Your task to perform on an android device: turn off location history Image 0: 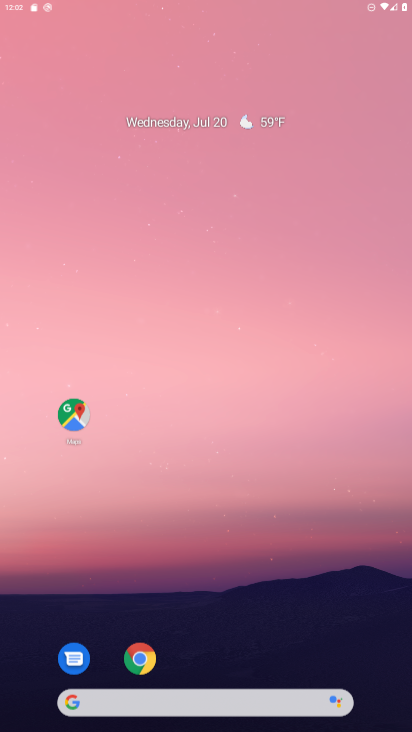
Step 0: press home button
Your task to perform on an android device: turn off location history Image 1: 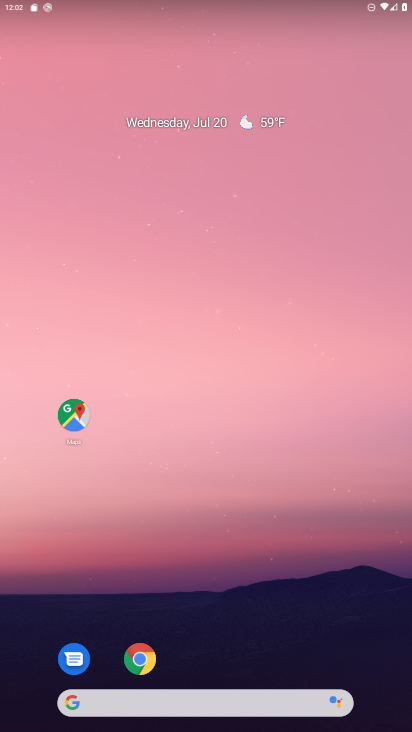
Step 1: drag from (337, 610) to (254, 0)
Your task to perform on an android device: turn off location history Image 2: 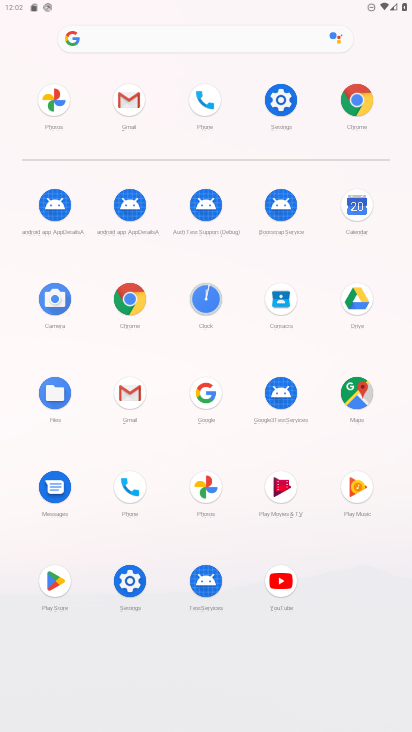
Step 2: click (280, 94)
Your task to perform on an android device: turn off location history Image 3: 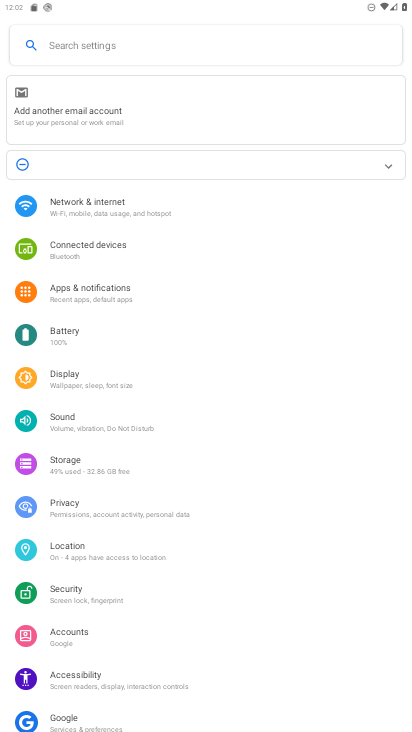
Step 3: drag from (183, 667) to (243, 271)
Your task to perform on an android device: turn off location history Image 4: 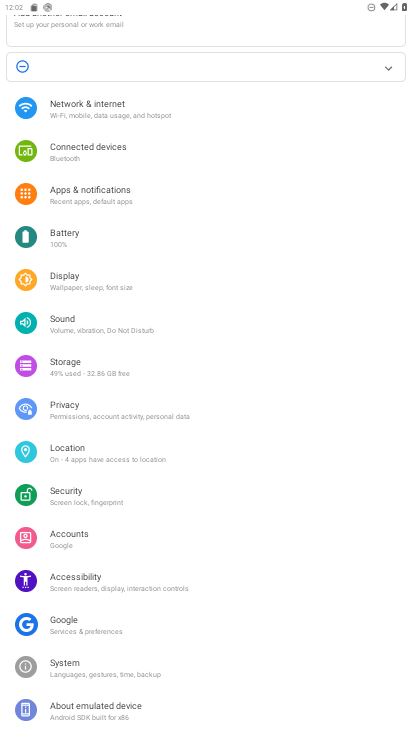
Step 4: click (95, 461)
Your task to perform on an android device: turn off location history Image 5: 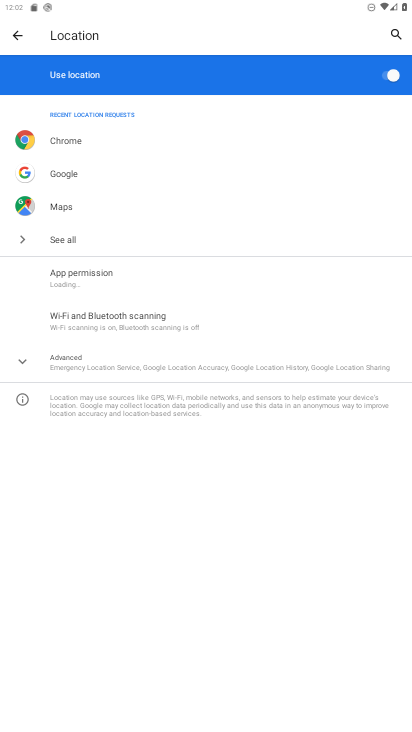
Step 5: click (124, 367)
Your task to perform on an android device: turn off location history Image 6: 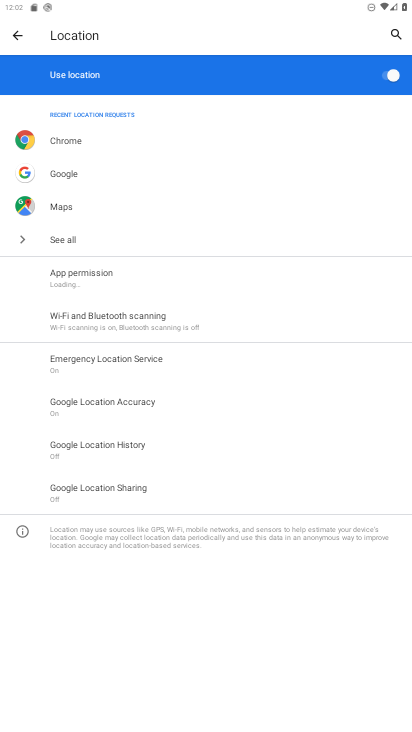
Step 6: click (122, 448)
Your task to perform on an android device: turn off location history Image 7: 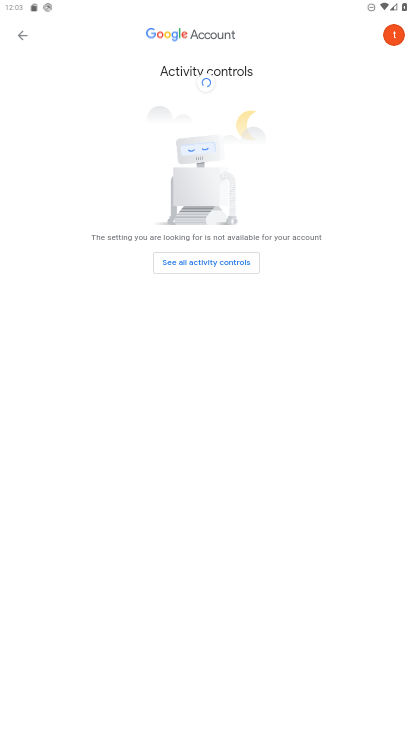
Step 7: task complete